Your task to perform on an android device: create a new album in the google photos Image 0: 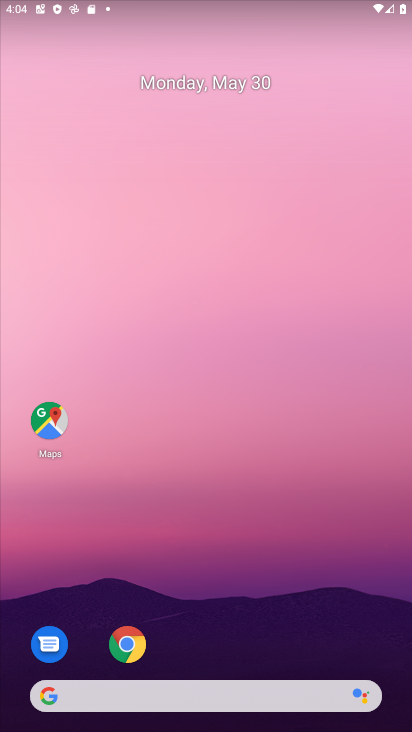
Step 0: drag from (273, 620) to (183, 78)
Your task to perform on an android device: create a new album in the google photos Image 1: 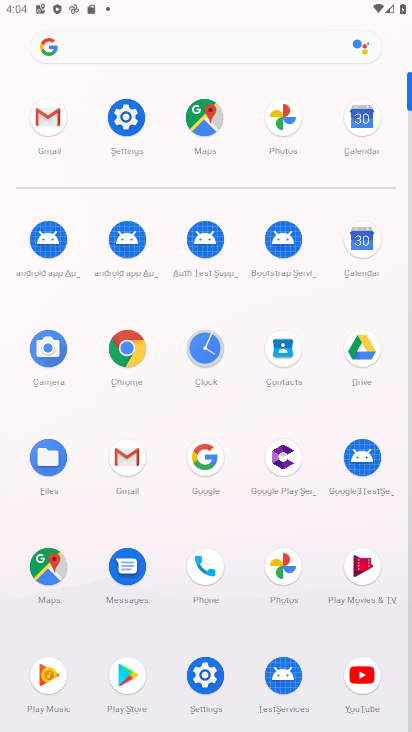
Step 1: click (271, 145)
Your task to perform on an android device: create a new album in the google photos Image 2: 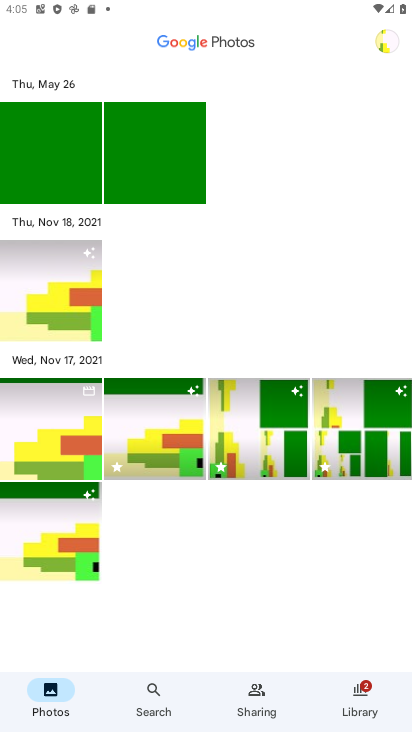
Step 2: task complete